Your task to perform on an android device: toggle data saver in the chrome app Image 0: 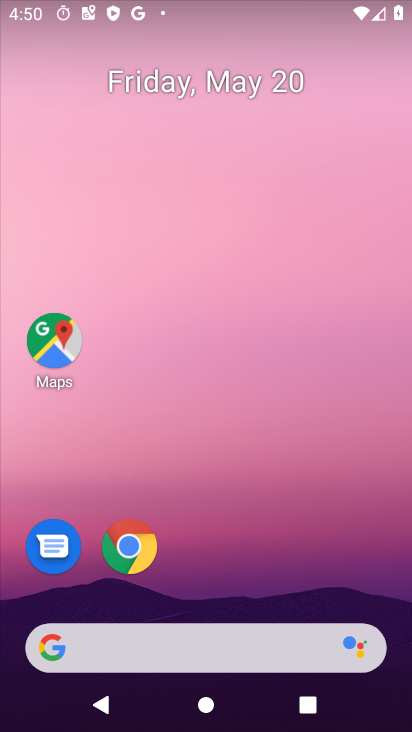
Step 0: click (127, 545)
Your task to perform on an android device: toggle data saver in the chrome app Image 1: 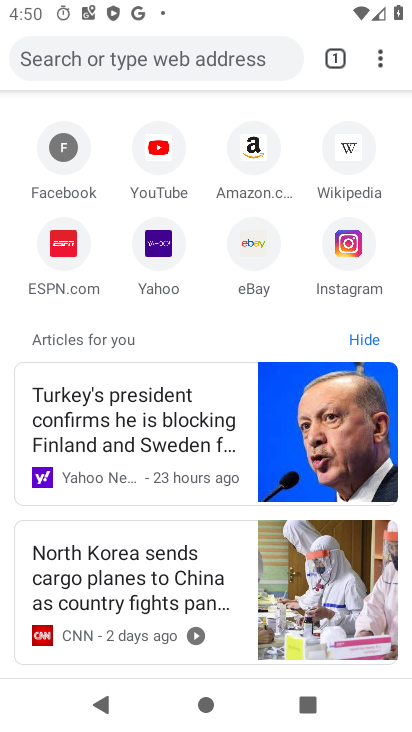
Step 1: click (382, 59)
Your task to perform on an android device: toggle data saver in the chrome app Image 2: 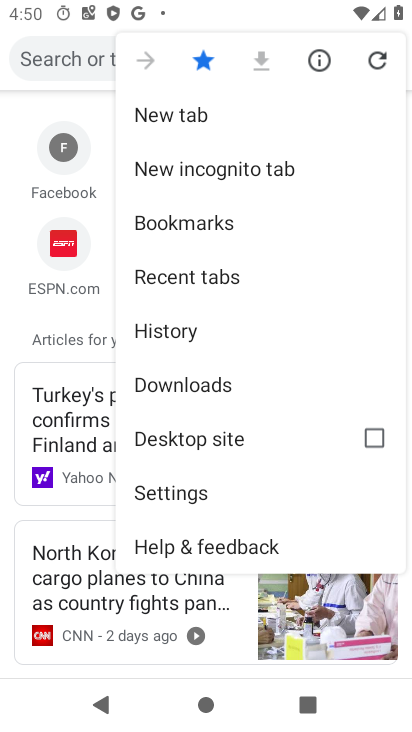
Step 2: click (179, 492)
Your task to perform on an android device: toggle data saver in the chrome app Image 3: 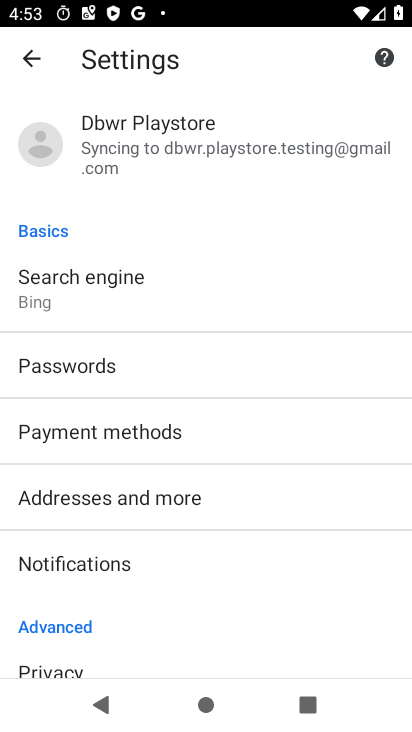
Step 3: drag from (153, 504) to (202, 391)
Your task to perform on an android device: toggle data saver in the chrome app Image 4: 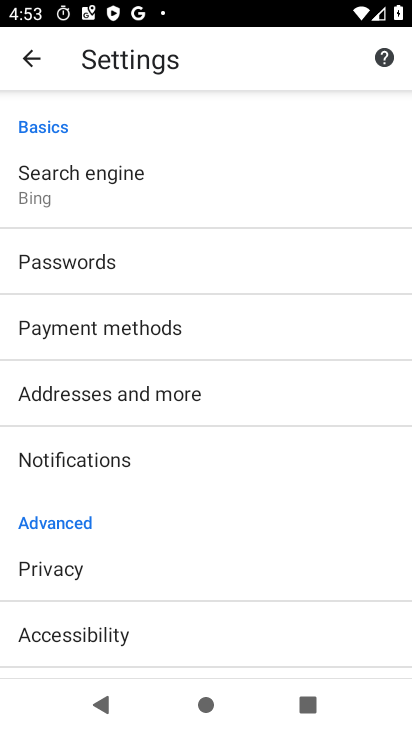
Step 4: drag from (214, 533) to (187, 339)
Your task to perform on an android device: toggle data saver in the chrome app Image 5: 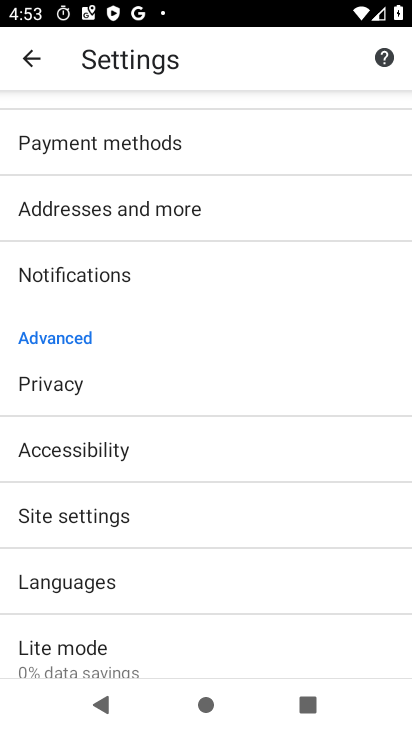
Step 5: drag from (161, 514) to (216, 373)
Your task to perform on an android device: toggle data saver in the chrome app Image 6: 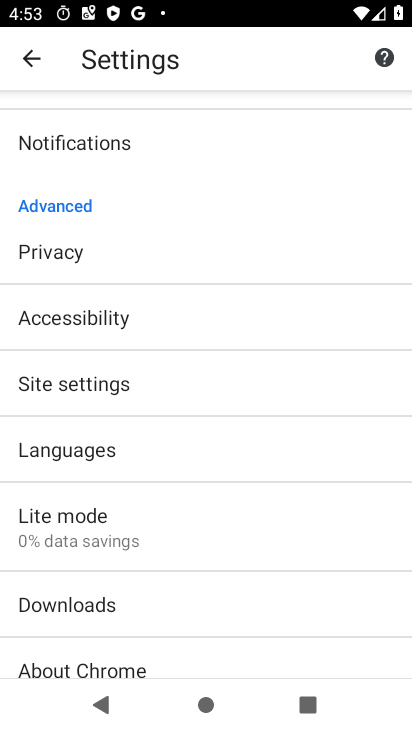
Step 6: click (101, 509)
Your task to perform on an android device: toggle data saver in the chrome app Image 7: 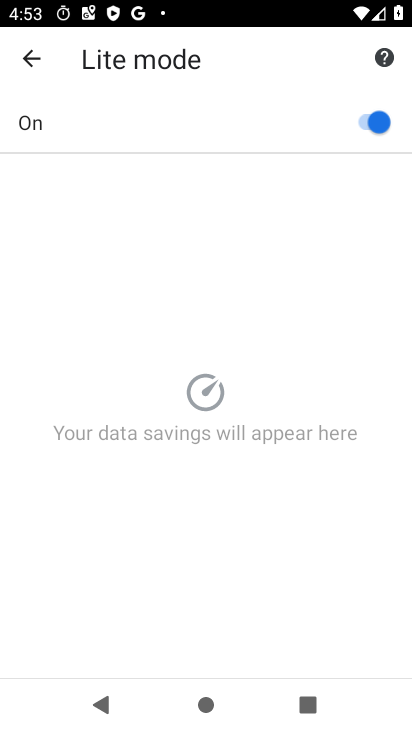
Step 7: click (383, 121)
Your task to perform on an android device: toggle data saver in the chrome app Image 8: 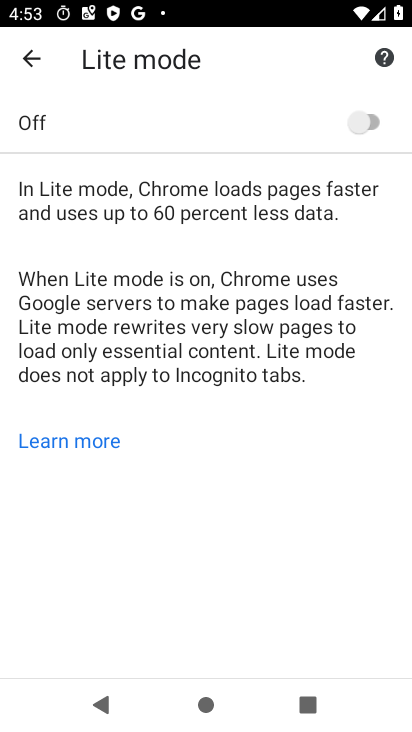
Step 8: task complete